Your task to perform on an android device: change the clock display to show seconds Image 0: 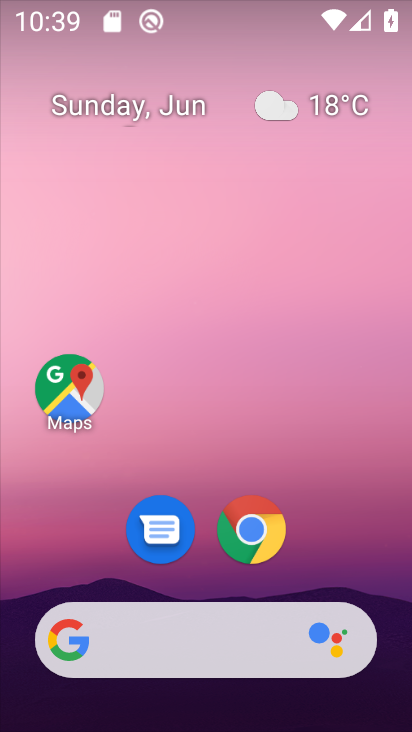
Step 0: drag from (96, 600) to (178, 221)
Your task to perform on an android device: change the clock display to show seconds Image 1: 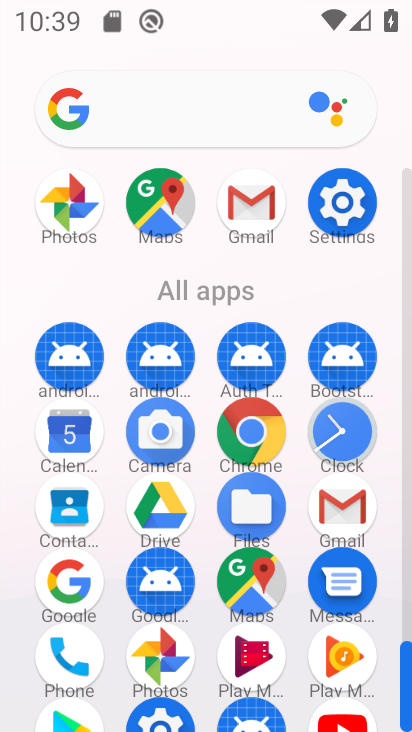
Step 1: click (352, 450)
Your task to perform on an android device: change the clock display to show seconds Image 2: 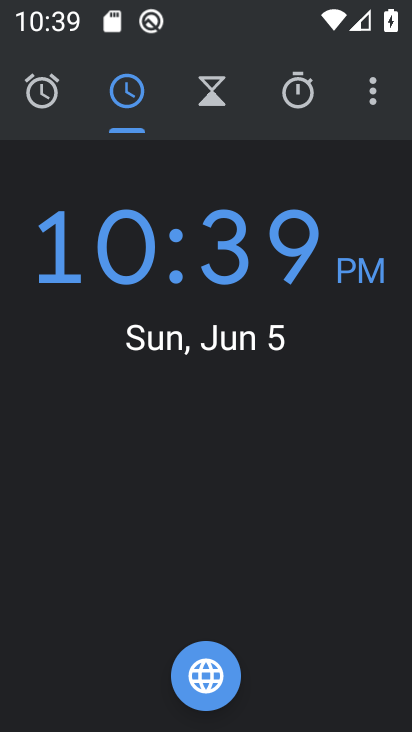
Step 2: click (377, 59)
Your task to perform on an android device: change the clock display to show seconds Image 3: 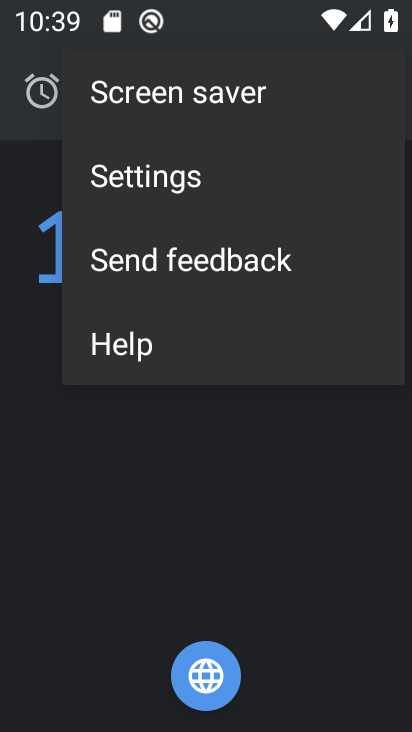
Step 3: click (282, 180)
Your task to perform on an android device: change the clock display to show seconds Image 4: 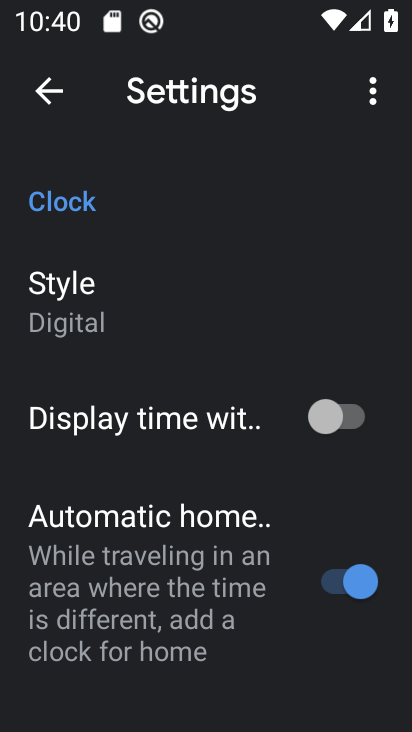
Step 4: click (371, 408)
Your task to perform on an android device: change the clock display to show seconds Image 5: 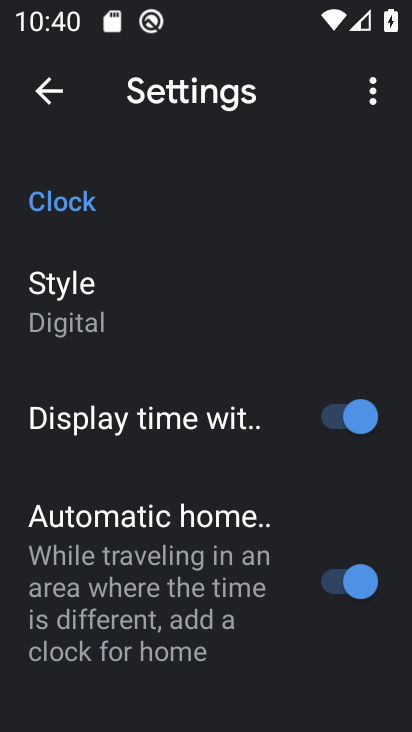
Step 5: task complete